Your task to perform on an android device: Add "acer nitro" to the cart on walmart.com Image 0: 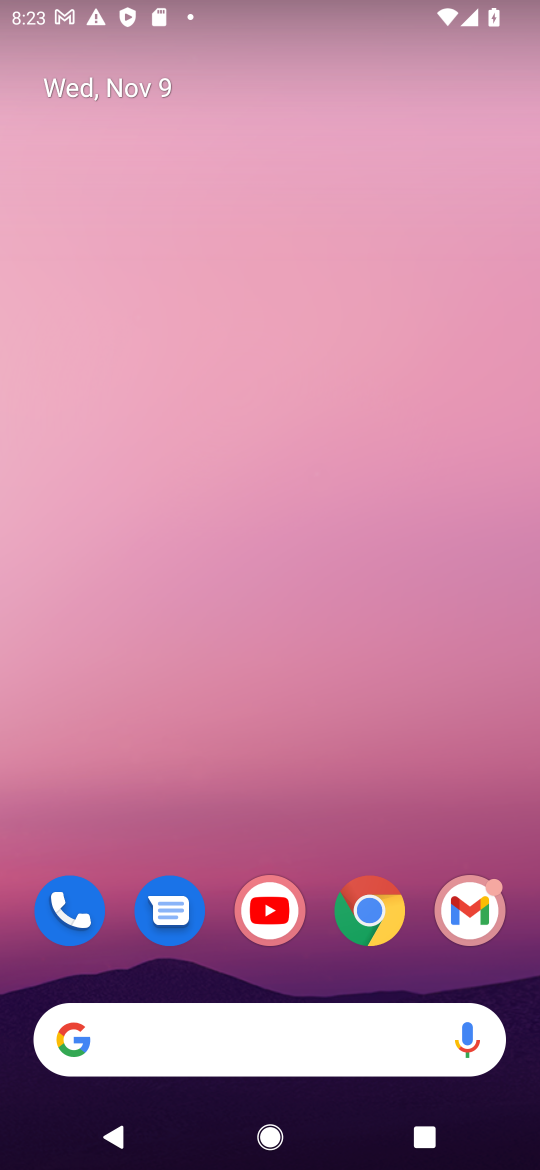
Step 0: click (365, 915)
Your task to perform on an android device: Add "acer nitro" to the cart on walmart.com Image 1: 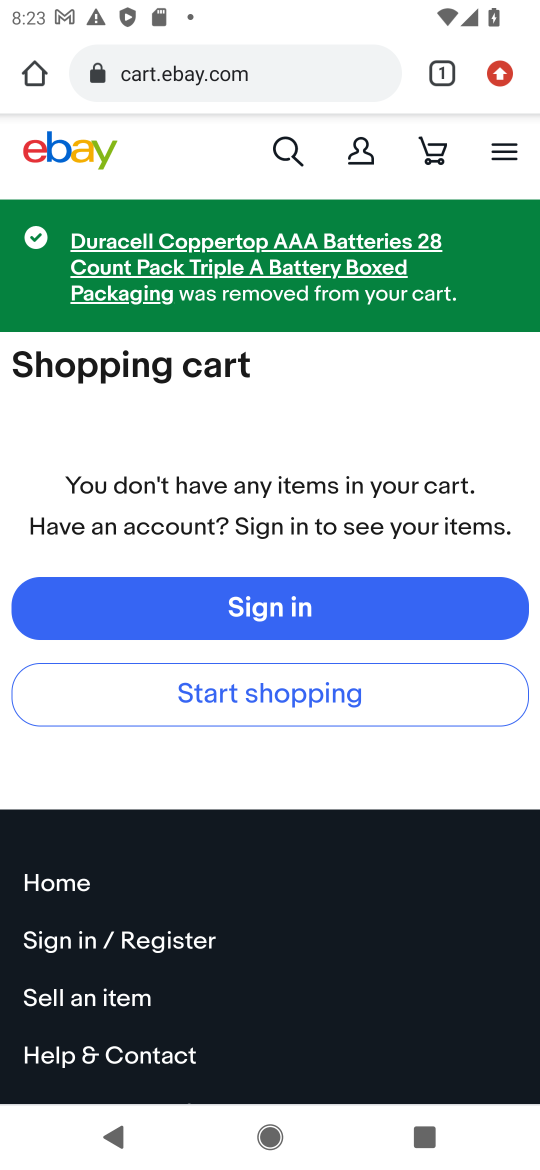
Step 1: click (234, 62)
Your task to perform on an android device: Add "acer nitro" to the cart on walmart.com Image 2: 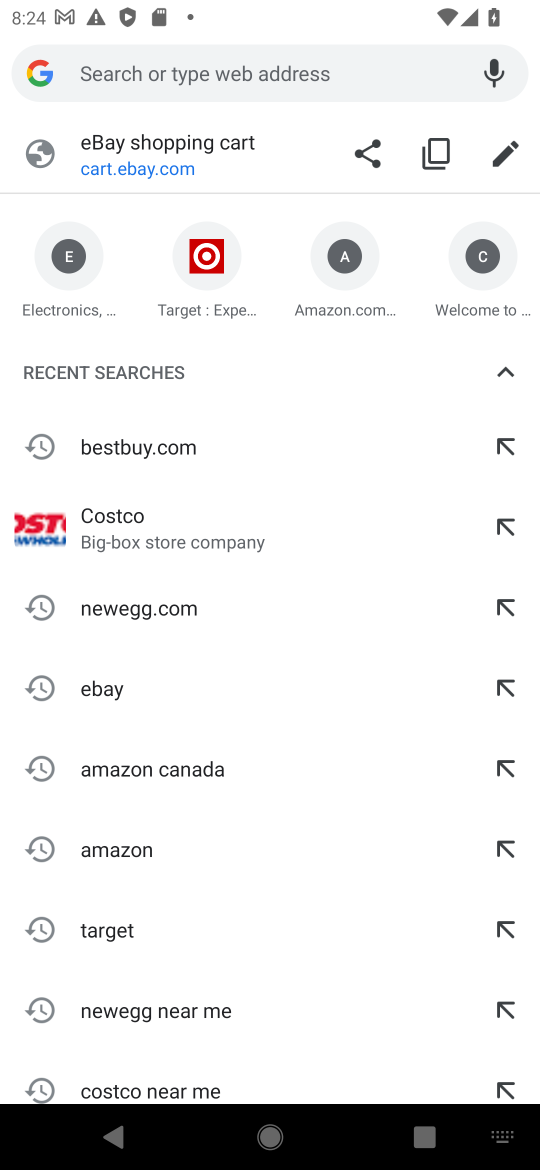
Step 2: type "walmart.com"
Your task to perform on an android device: Add "acer nitro" to the cart on walmart.com Image 3: 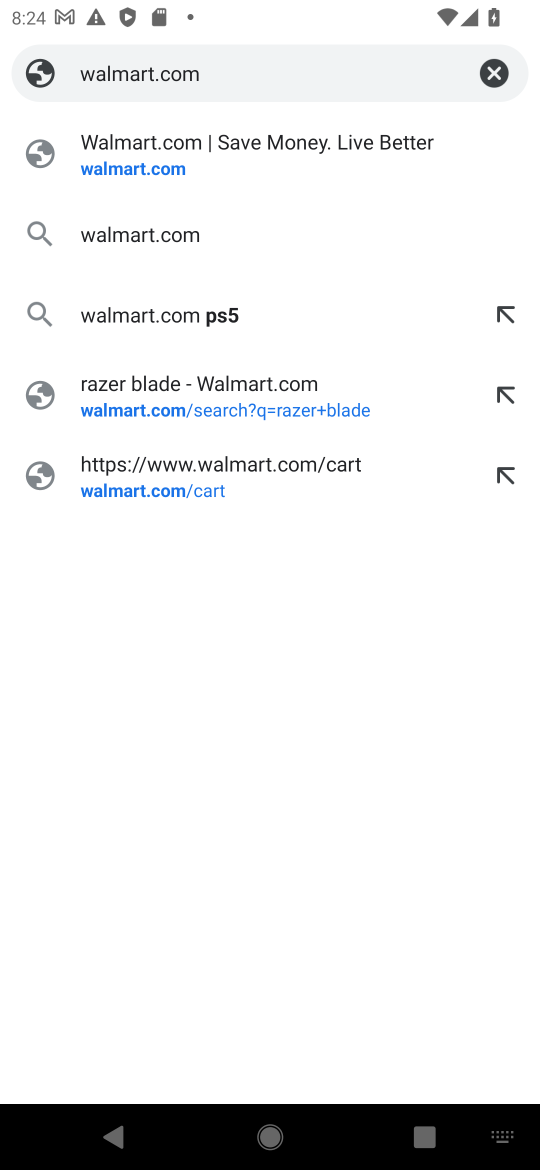
Step 3: click (140, 175)
Your task to perform on an android device: Add "acer nitro" to the cart on walmart.com Image 4: 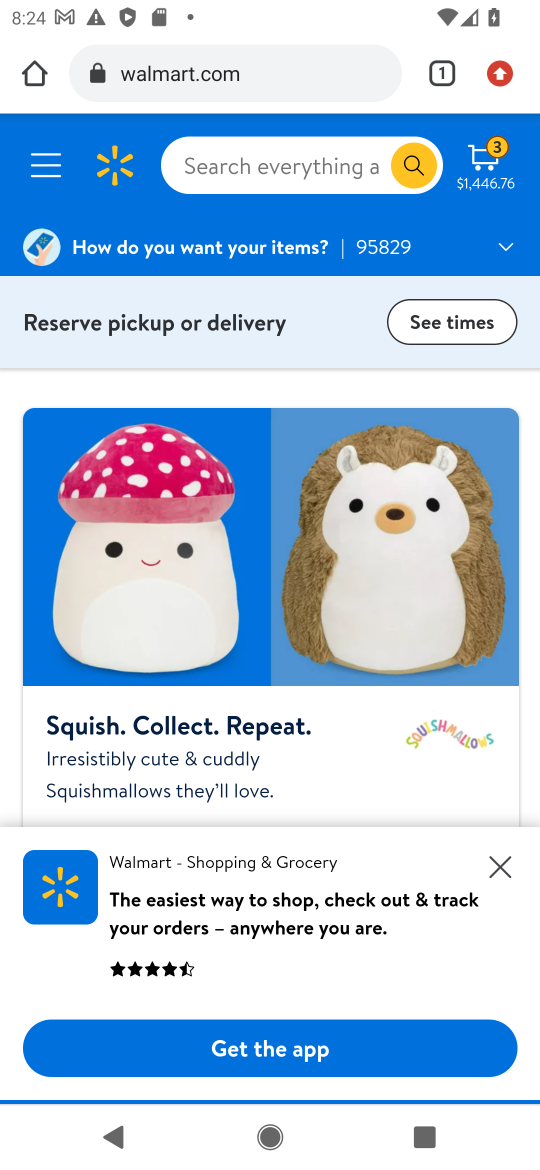
Step 4: click (290, 171)
Your task to perform on an android device: Add "acer nitro" to the cart on walmart.com Image 5: 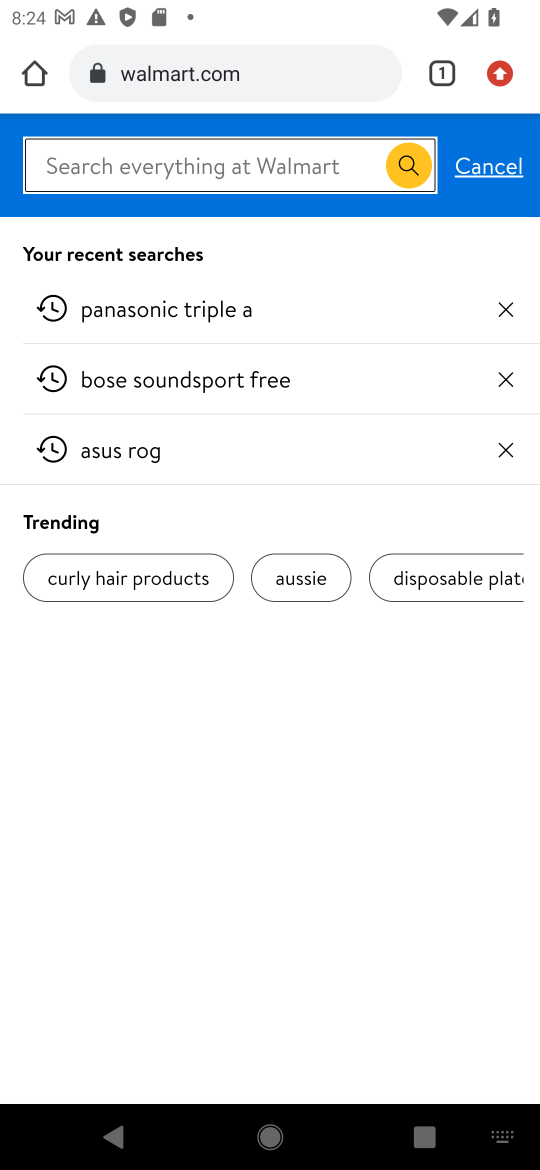
Step 5: type "acer nitro"
Your task to perform on an android device: Add "acer nitro" to the cart on walmart.com Image 6: 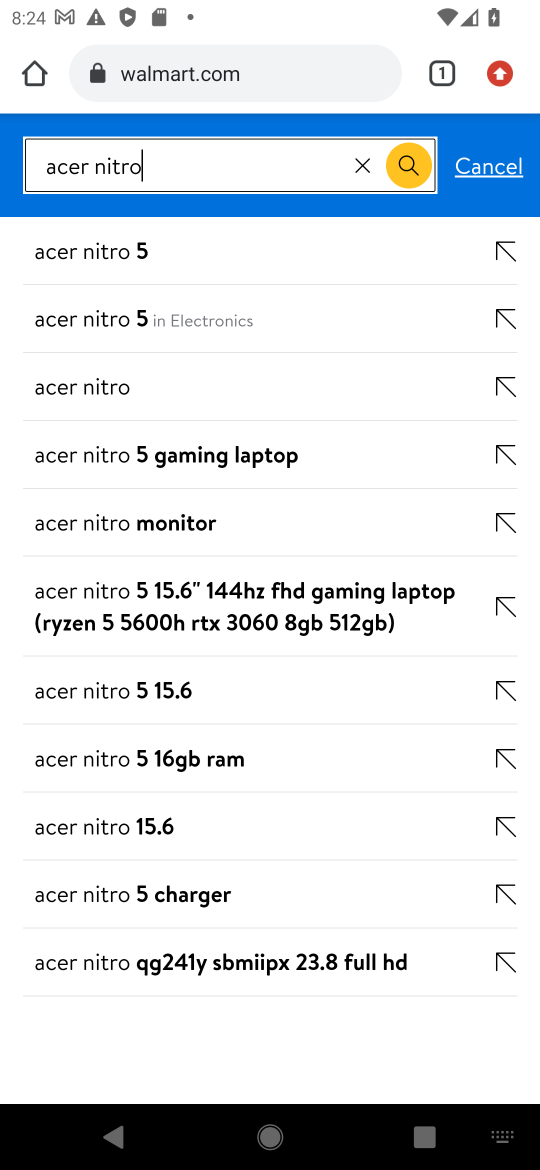
Step 6: click (101, 392)
Your task to perform on an android device: Add "acer nitro" to the cart on walmart.com Image 7: 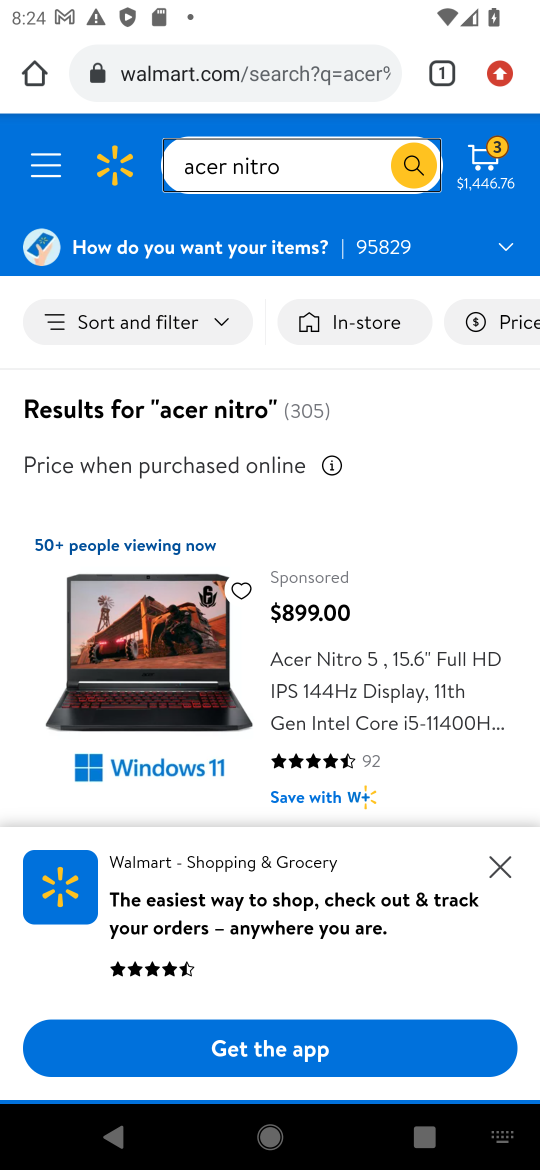
Step 7: drag from (198, 724) to (195, 490)
Your task to perform on an android device: Add "acer nitro" to the cart on walmart.com Image 8: 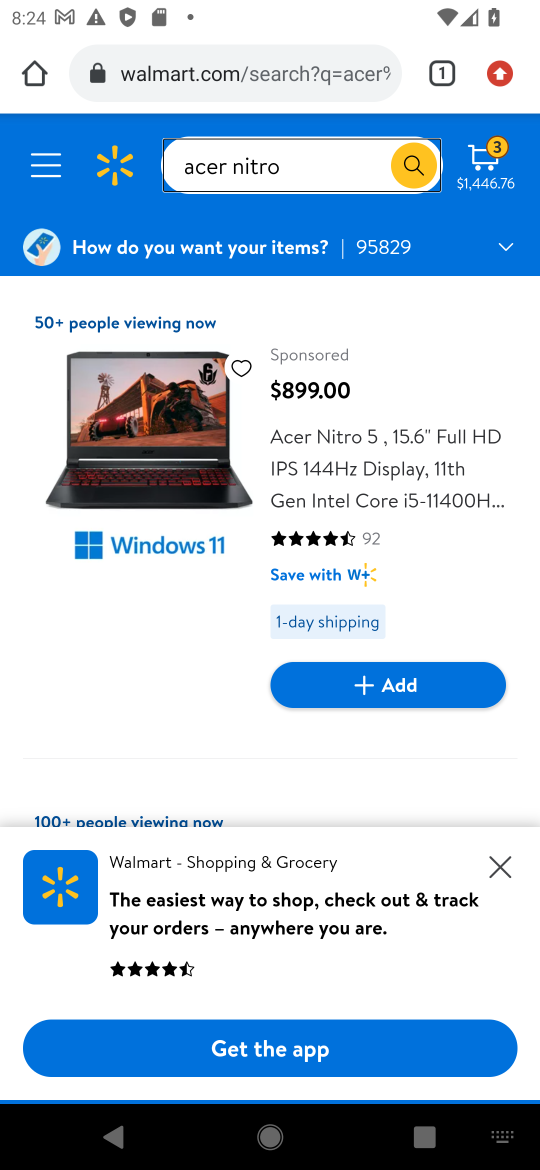
Step 8: click (365, 692)
Your task to perform on an android device: Add "acer nitro" to the cart on walmart.com Image 9: 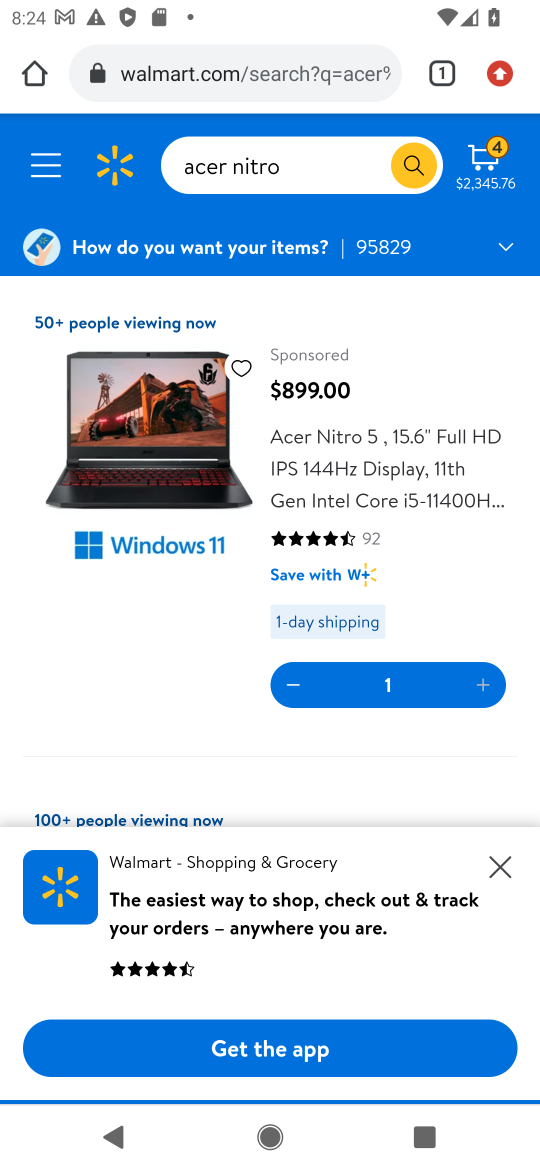
Step 9: task complete